Your task to perform on an android device: Open accessibility settings Image 0: 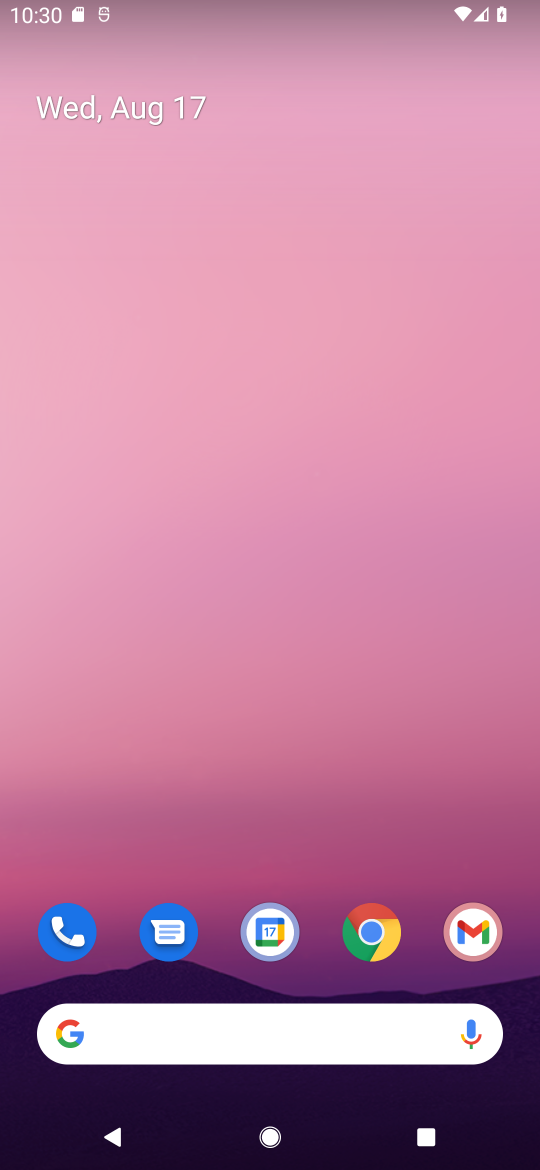
Step 0: drag from (331, 926) to (257, 56)
Your task to perform on an android device: Open accessibility settings Image 1: 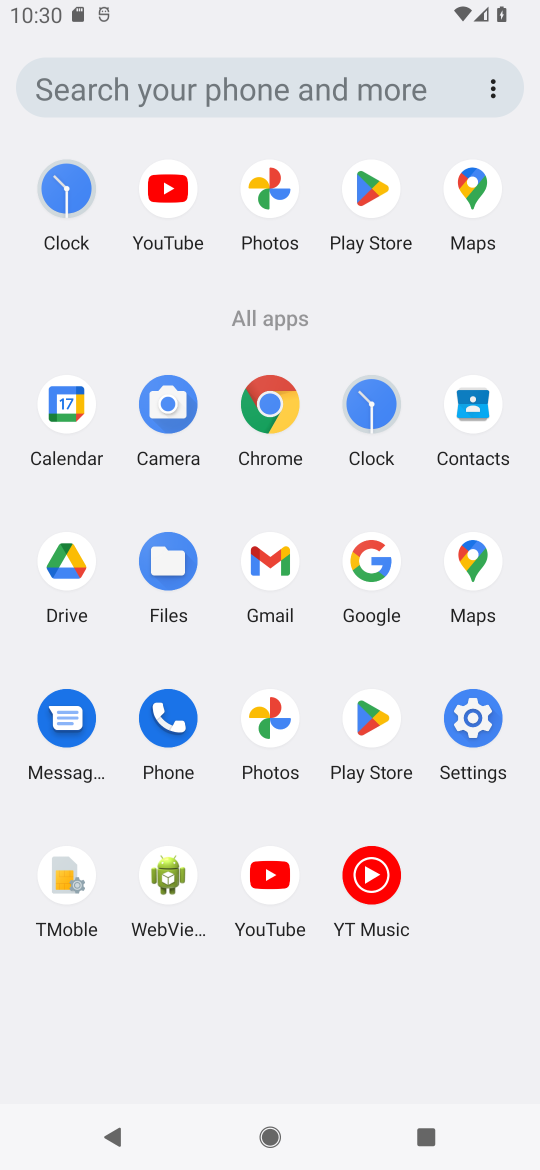
Step 1: click (477, 720)
Your task to perform on an android device: Open accessibility settings Image 2: 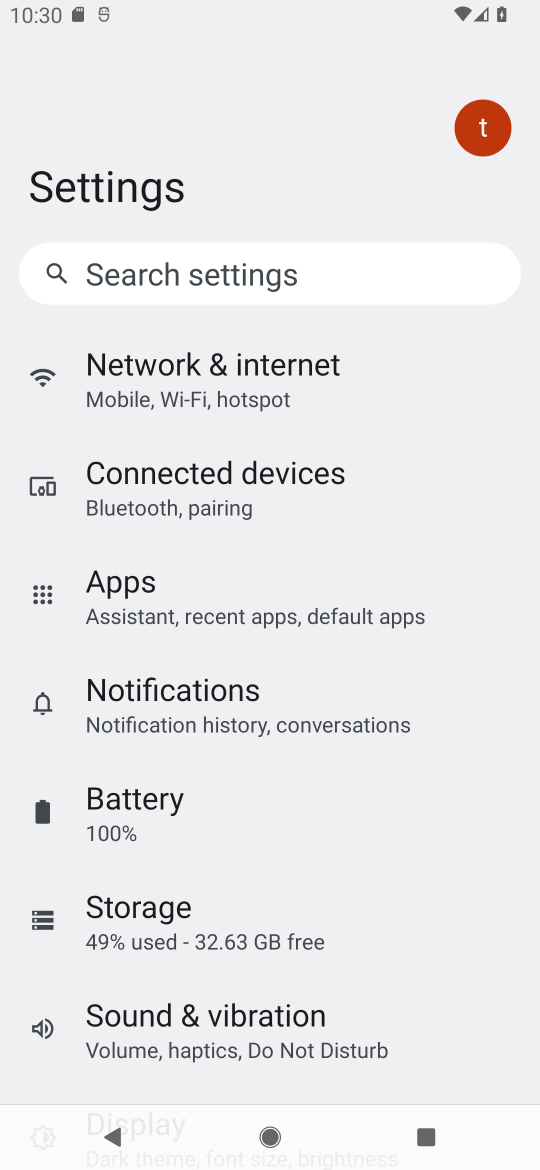
Step 2: drag from (203, 966) to (198, 351)
Your task to perform on an android device: Open accessibility settings Image 3: 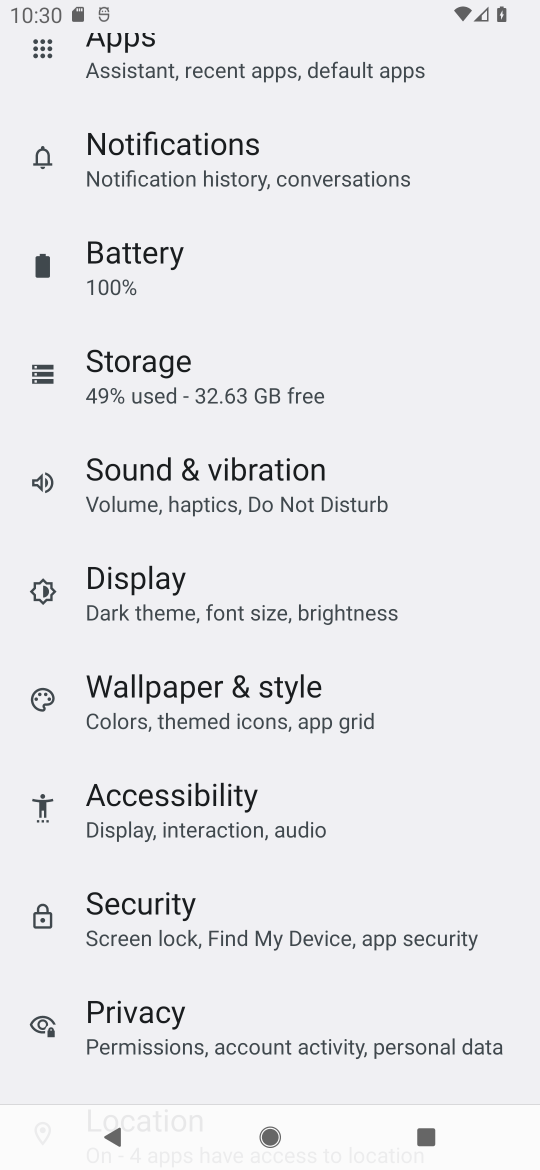
Step 3: click (166, 799)
Your task to perform on an android device: Open accessibility settings Image 4: 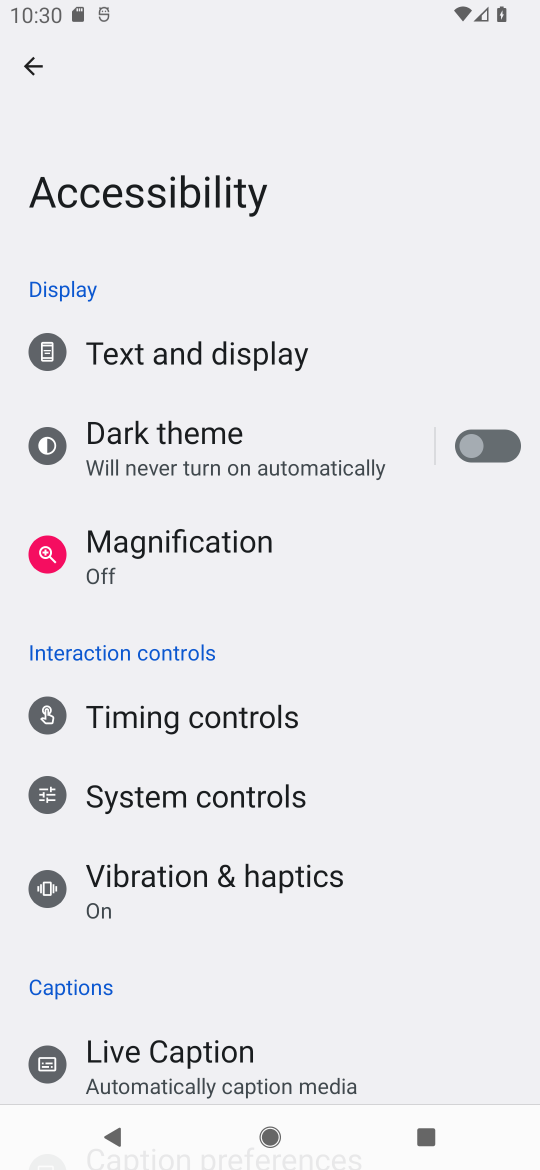
Step 4: task complete